Your task to perform on an android device: turn on wifi Image 0: 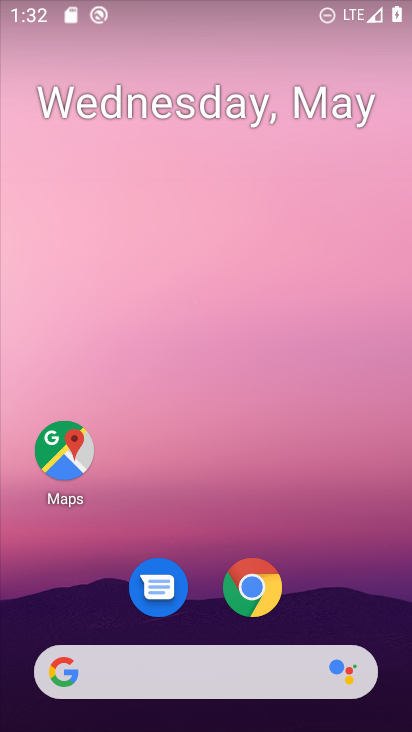
Step 0: drag from (313, 613) to (275, 149)
Your task to perform on an android device: turn on wifi Image 1: 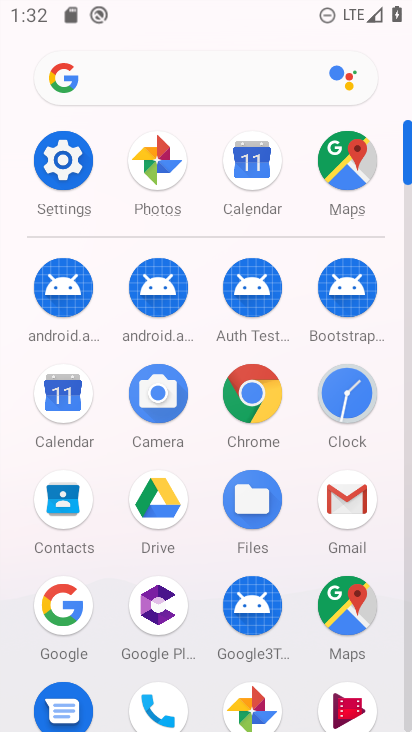
Step 1: click (44, 167)
Your task to perform on an android device: turn on wifi Image 2: 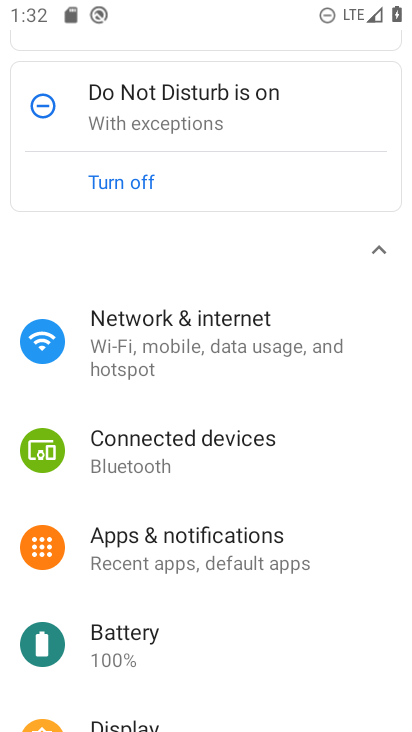
Step 2: click (205, 378)
Your task to perform on an android device: turn on wifi Image 3: 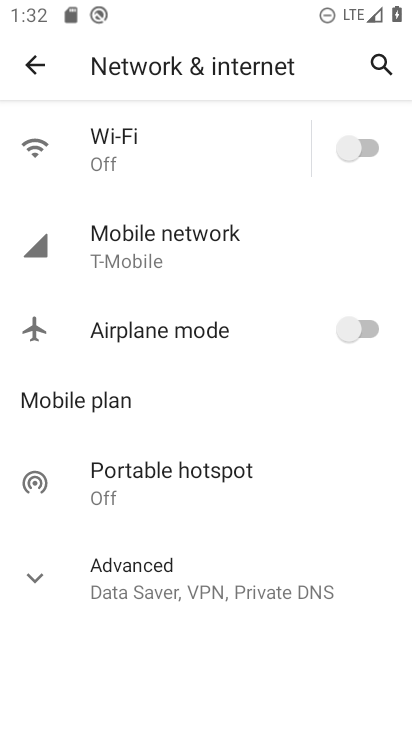
Step 3: click (143, 156)
Your task to perform on an android device: turn on wifi Image 4: 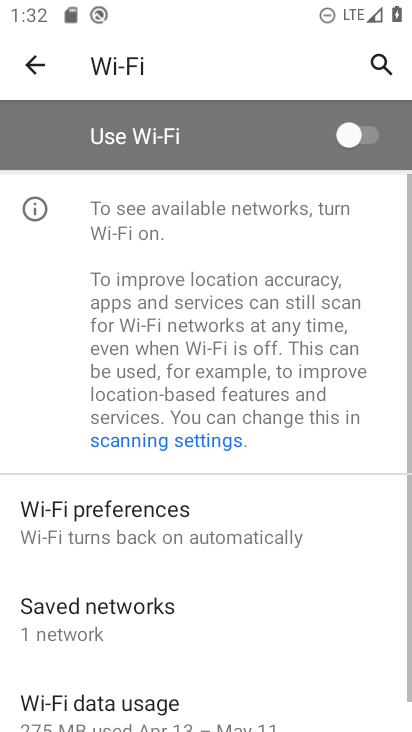
Step 4: click (367, 155)
Your task to perform on an android device: turn on wifi Image 5: 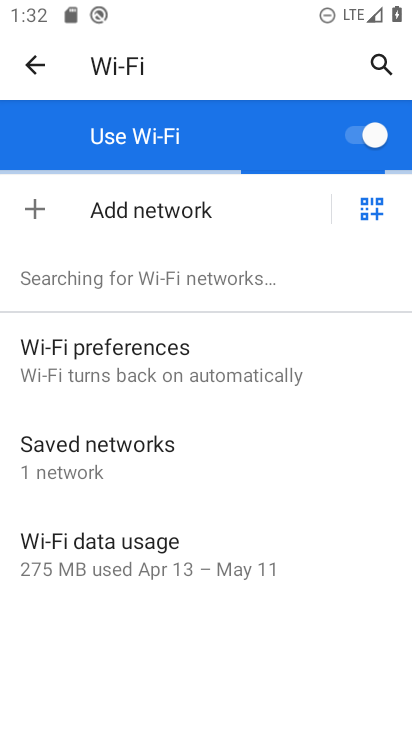
Step 5: task complete